Your task to perform on an android device: Open Google Chrome and click the shortcut for Amazon.com Image 0: 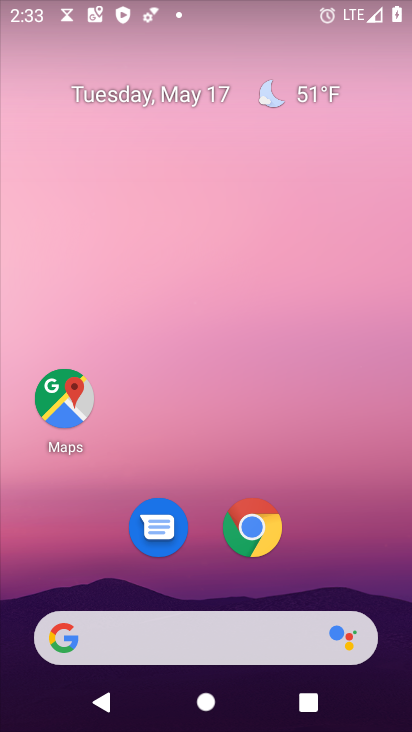
Step 0: click (254, 526)
Your task to perform on an android device: Open Google Chrome and click the shortcut for Amazon.com Image 1: 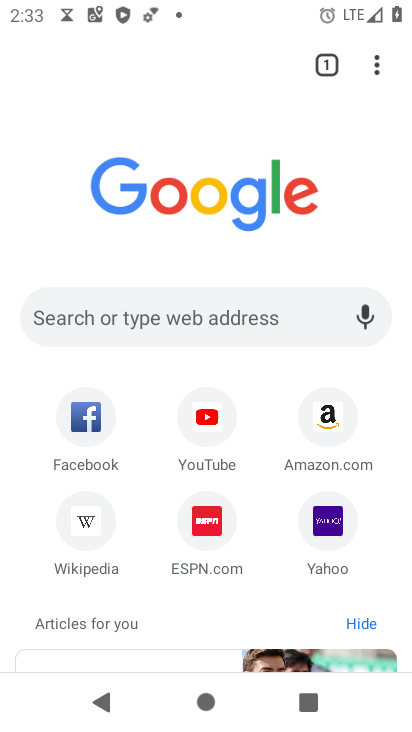
Step 1: click (330, 416)
Your task to perform on an android device: Open Google Chrome and click the shortcut for Amazon.com Image 2: 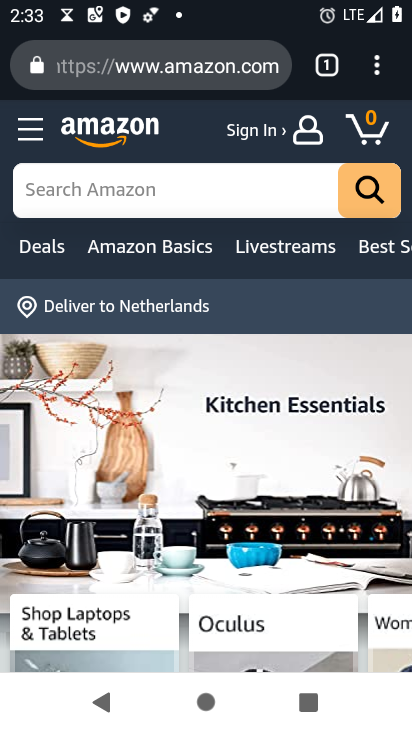
Step 2: click (380, 69)
Your task to perform on an android device: Open Google Chrome and click the shortcut for Amazon.com Image 3: 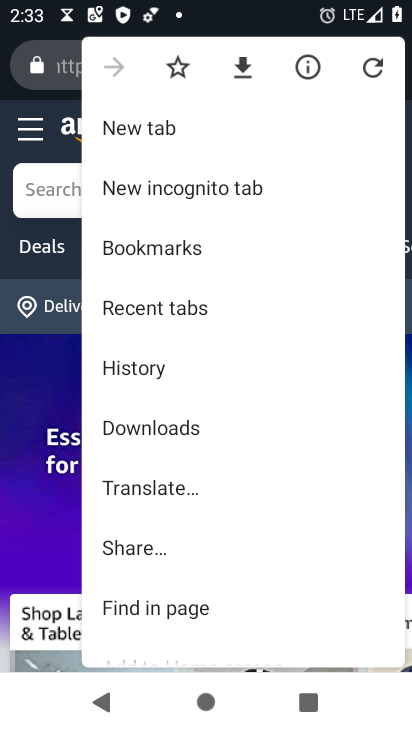
Step 3: drag from (200, 541) to (242, 464)
Your task to perform on an android device: Open Google Chrome and click the shortcut for Amazon.com Image 4: 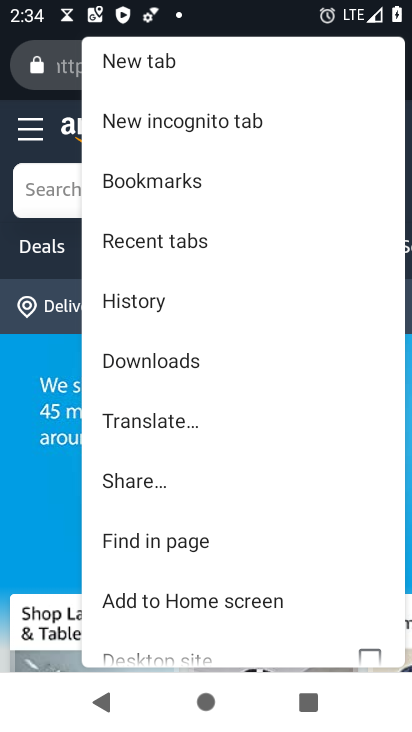
Step 4: click (200, 601)
Your task to perform on an android device: Open Google Chrome and click the shortcut for Amazon.com Image 5: 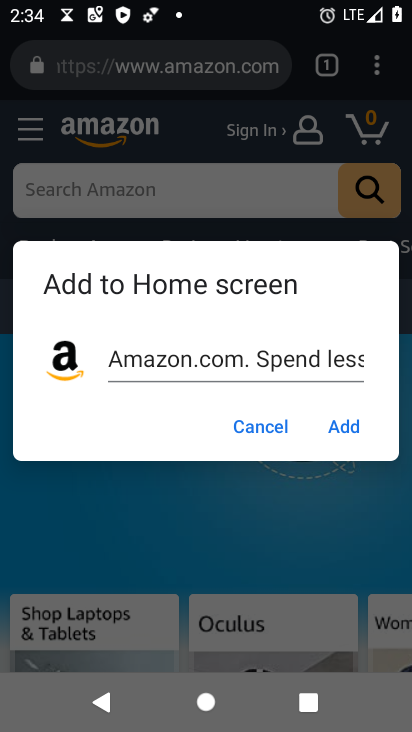
Step 5: click (344, 422)
Your task to perform on an android device: Open Google Chrome and click the shortcut for Amazon.com Image 6: 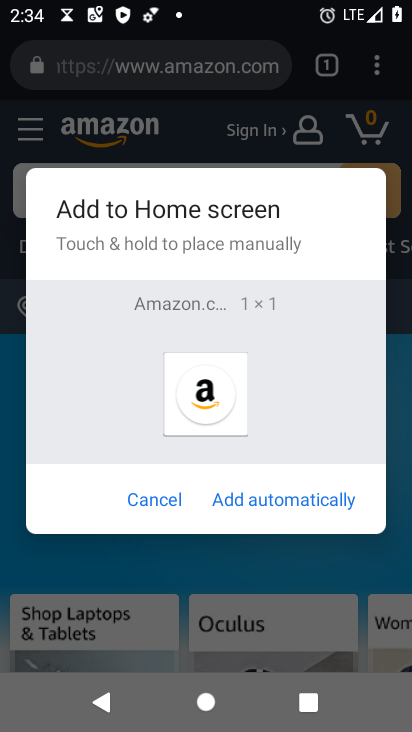
Step 6: click (185, 491)
Your task to perform on an android device: Open Google Chrome and click the shortcut for Amazon.com Image 7: 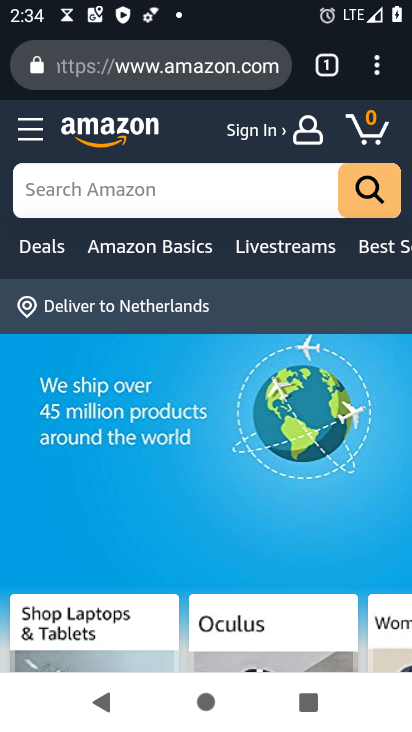
Step 7: task complete